Your task to perform on an android device: Go to calendar. Show me events next week Image 0: 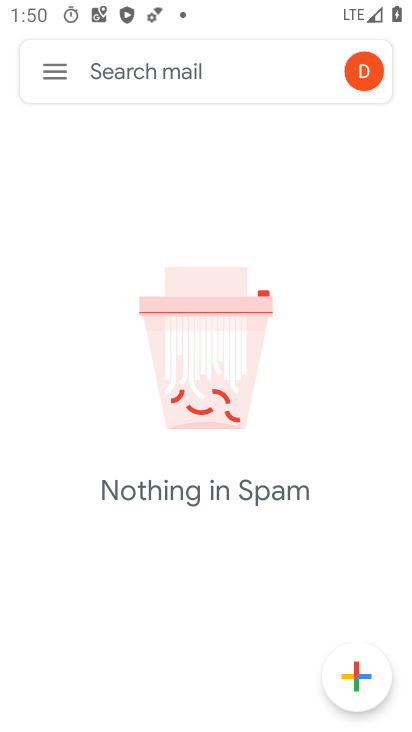
Step 0: press home button
Your task to perform on an android device: Go to calendar. Show me events next week Image 1: 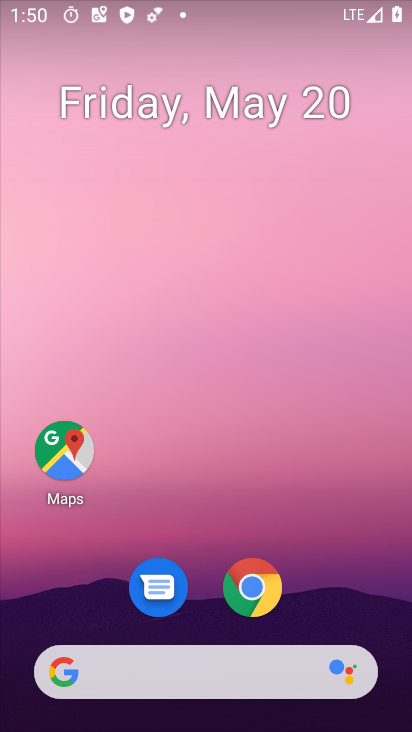
Step 1: drag from (348, 528) to (272, 120)
Your task to perform on an android device: Go to calendar. Show me events next week Image 2: 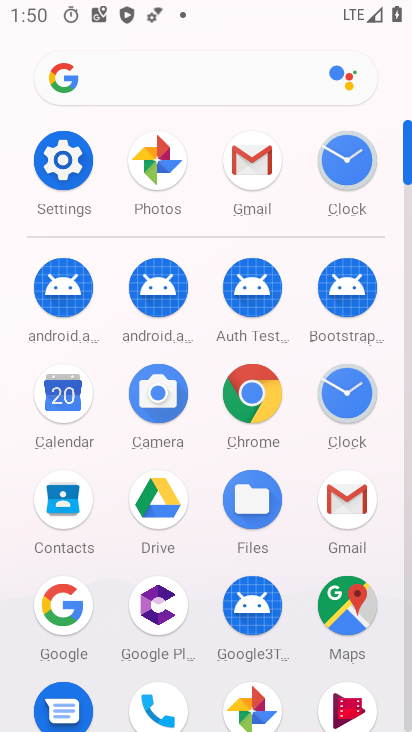
Step 2: click (77, 409)
Your task to perform on an android device: Go to calendar. Show me events next week Image 3: 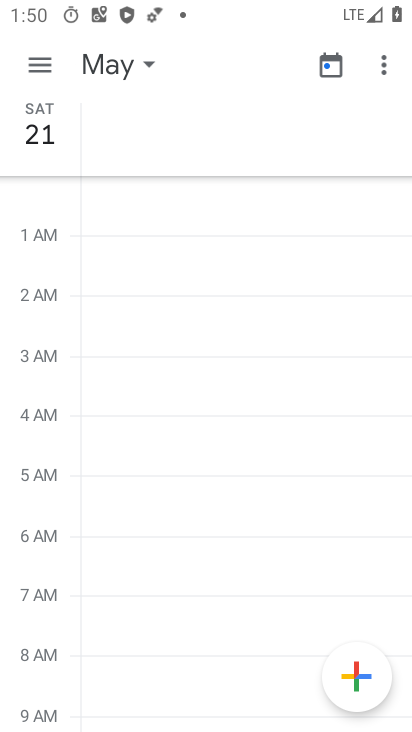
Step 3: click (116, 58)
Your task to perform on an android device: Go to calendar. Show me events next week Image 4: 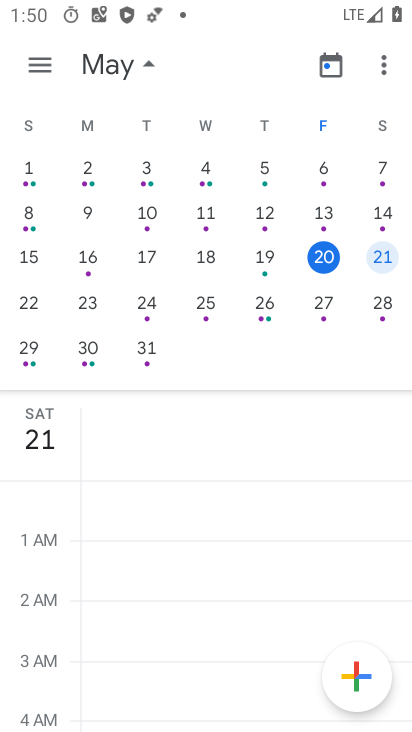
Step 4: click (138, 305)
Your task to perform on an android device: Go to calendar. Show me events next week Image 5: 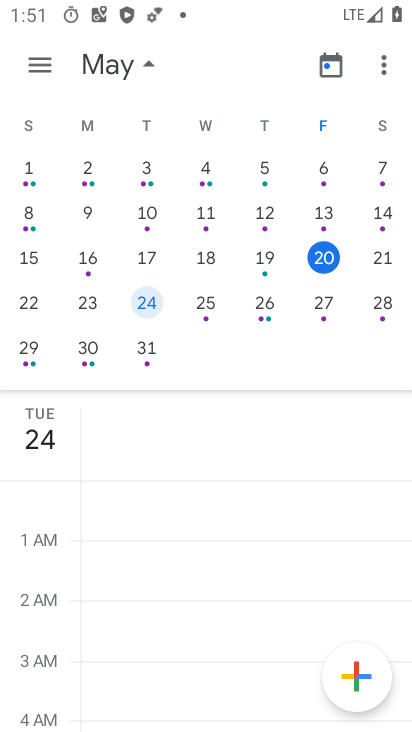
Step 5: click (43, 71)
Your task to perform on an android device: Go to calendar. Show me events next week Image 6: 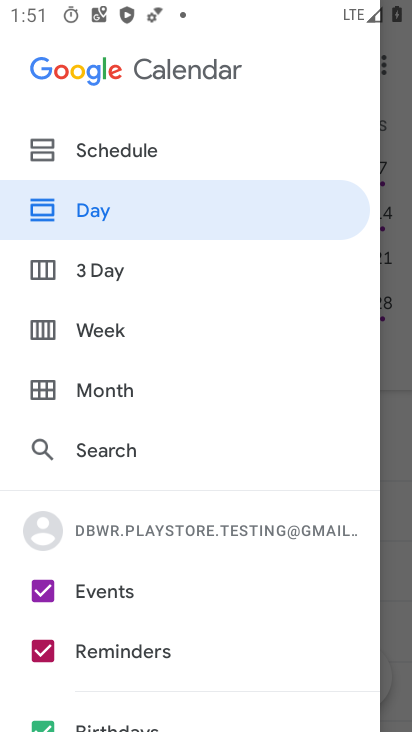
Step 6: click (112, 322)
Your task to perform on an android device: Go to calendar. Show me events next week Image 7: 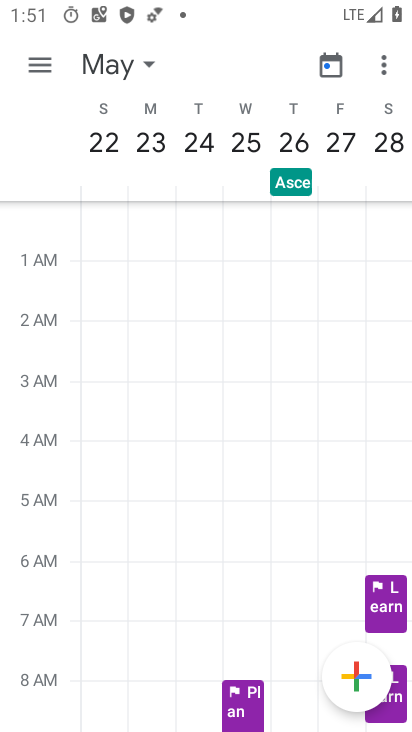
Step 7: task complete